Your task to perform on an android device: Go to Amazon Image 0: 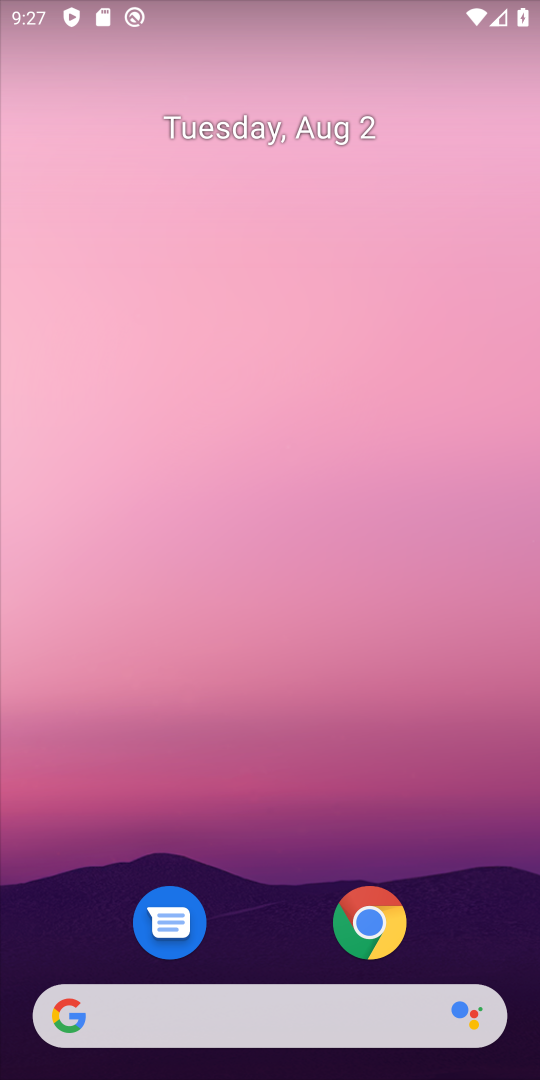
Step 0: click (369, 919)
Your task to perform on an android device: Go to Amazon Image 1: 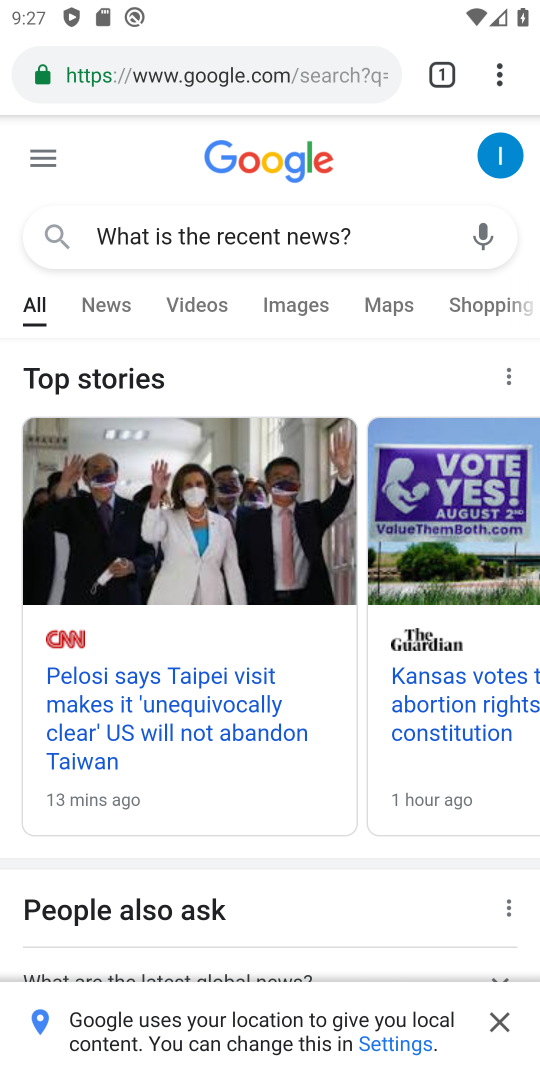
Step 1: click (435, 90)
Your task to perform on an android device: Go to Amazon Image 2: 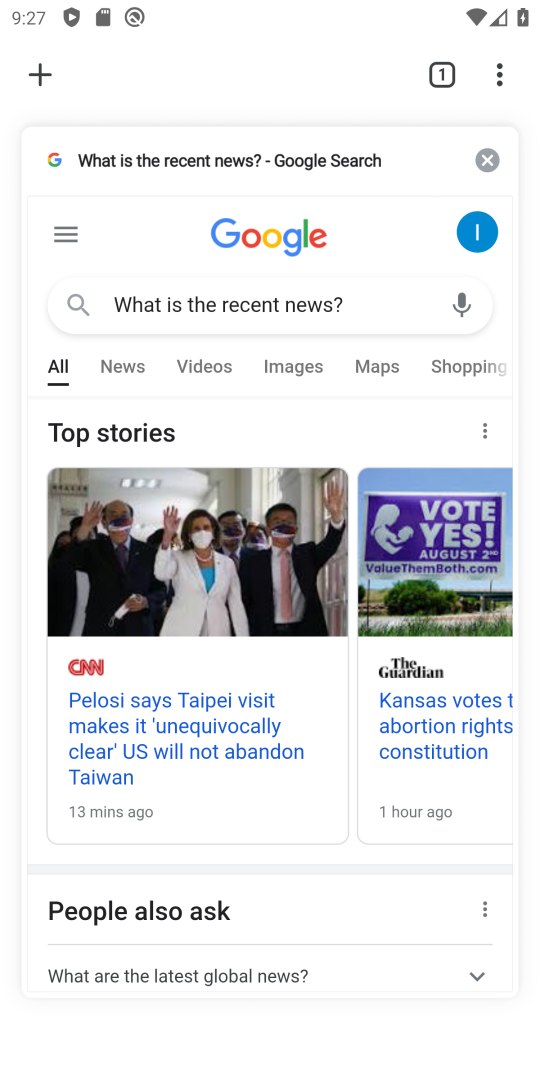
Step 2: click (33, 97)
Your task to perform on an android device: Go to Amazon Image 3: 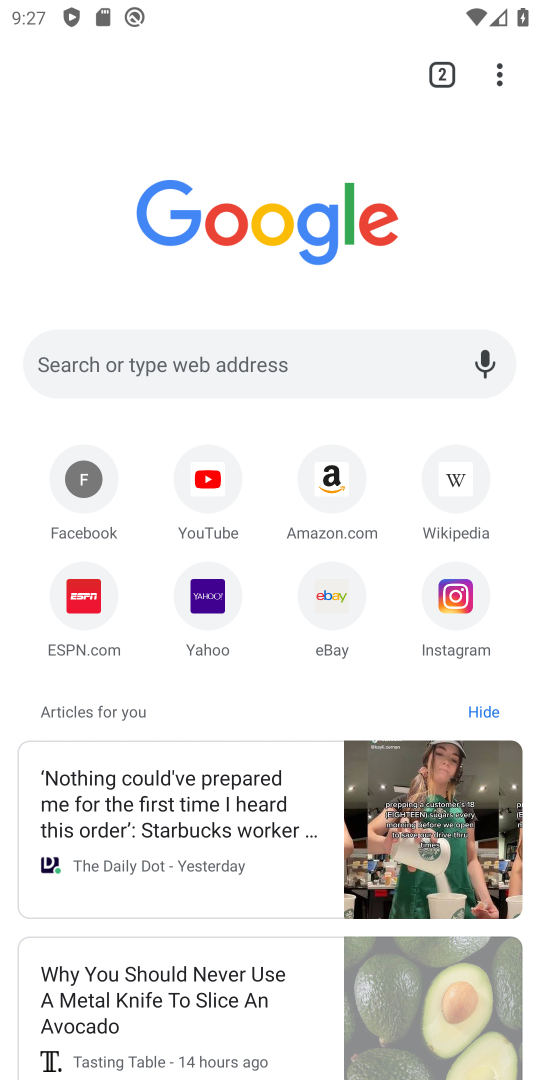
Step 3: click (332, 498)
Your task to perform on an android device: Go to Amazon Image 4: 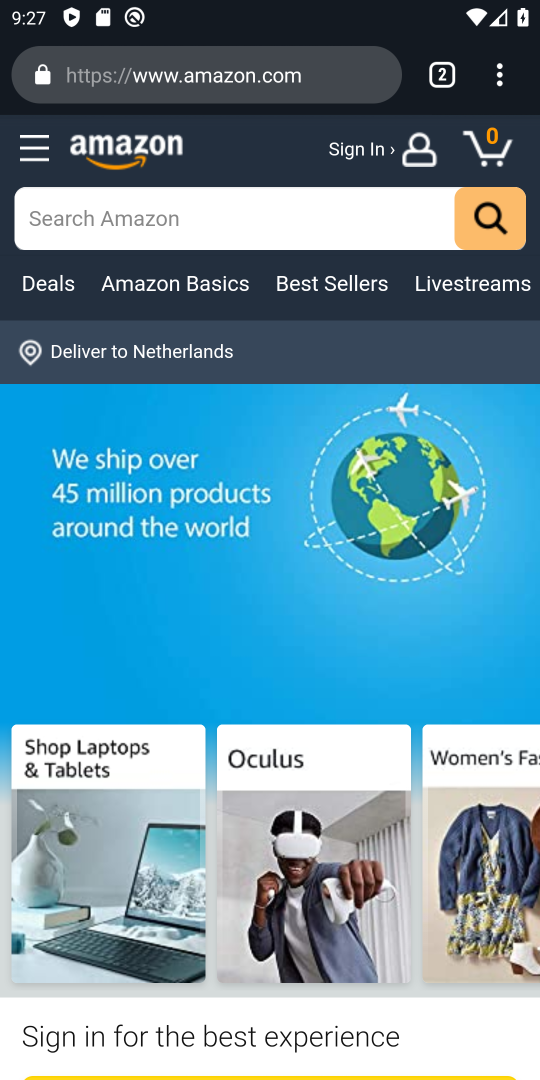
Step 4: task complete